Your task to perform on an android device: turn on notifications settings in the gmail app Image 0: 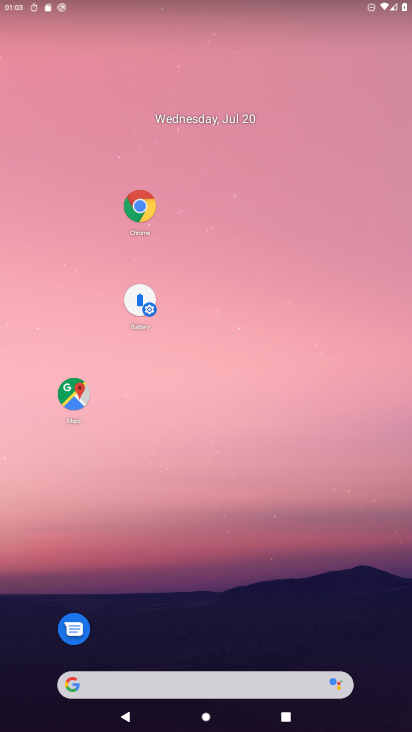
Step 0: drag from (229, 421) to (280, 84)
Your task to perform on an android device: turn on notifications settings in the gmail app Image 1: 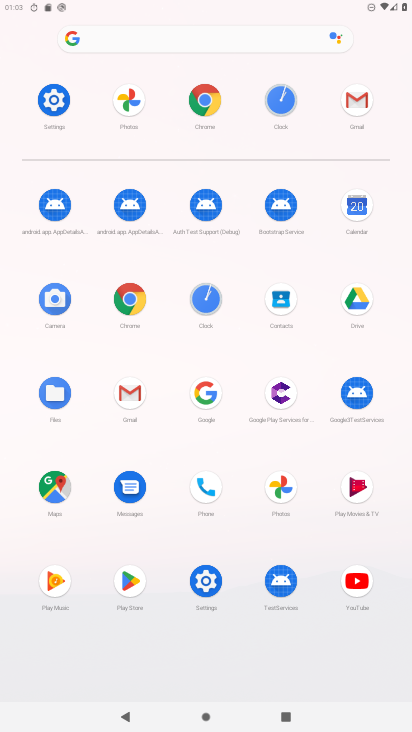
Step 1: click (127, 389)
Your task to perform on an android device: turn on notifications settings in the gmail app Image 2: 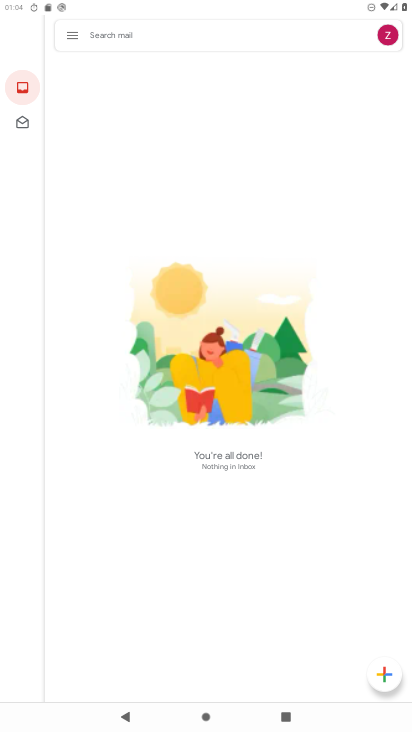
Step 2: drag from (208, 611) to (298, 22)
Your task to perform on an android device: turn on notifications settings in the gmail app Image 3: 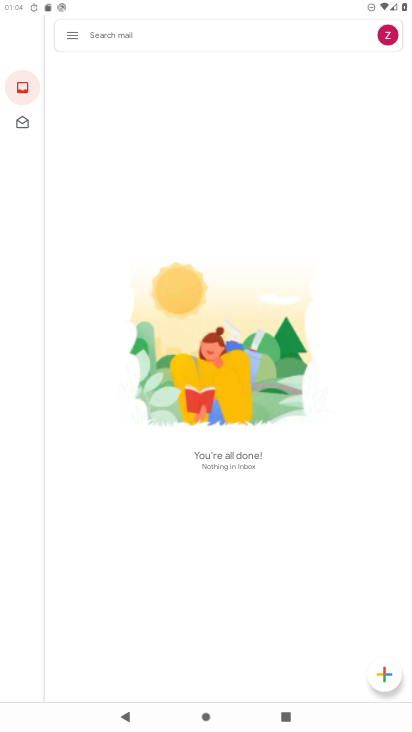
Step 3: click (71, 27)
Your task to perform on an android device: turn on notifications settings in the gmail app Image 4: 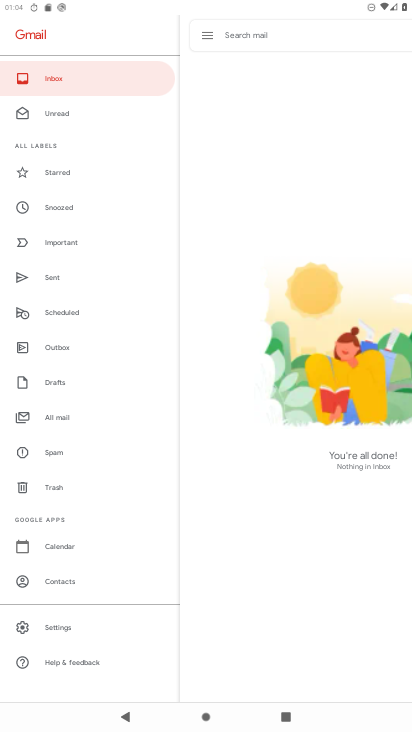
Step 4: click (71, 627)
Your task to perform on an android device: turn on notifications settings in the gmail app Image 5: 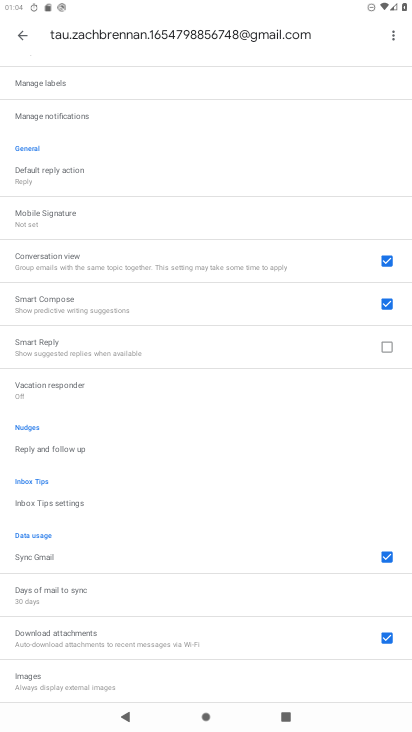
Step 5: click (71, 120)
Your task to perform on an android device: turn on notifications settings in the gmail app Image 6: 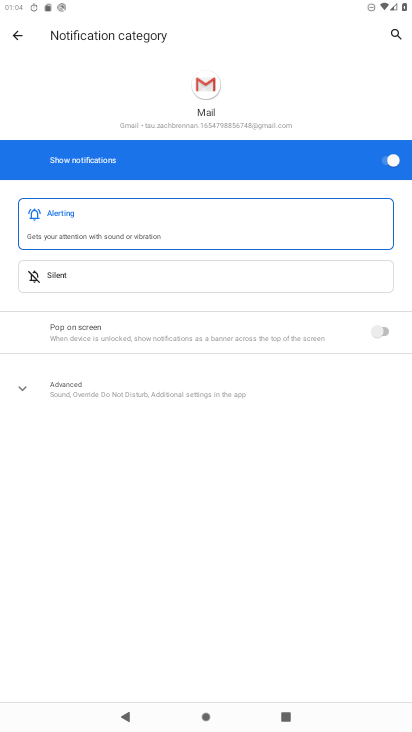
Step 6: task complete